Your task to perform on an android device: Open the calendar app, open the side menu, and click the "Day" option Image 0: 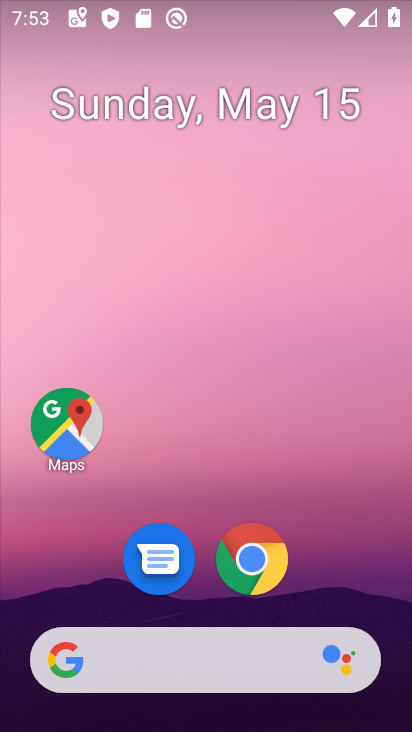
Step 0: drag from (309, 576) to (338, 79)
Your task to perform on an android device: Open the calendar app, open the side menu, and click the "Day" option Image 1: 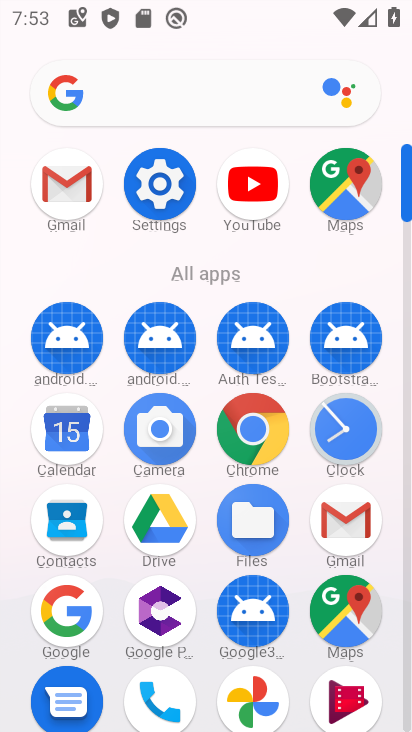
Step 1: click (184, 178)
Your task to perform on an android device: Open the calendar app, open the side menu, and click the "Day" option Image 2: 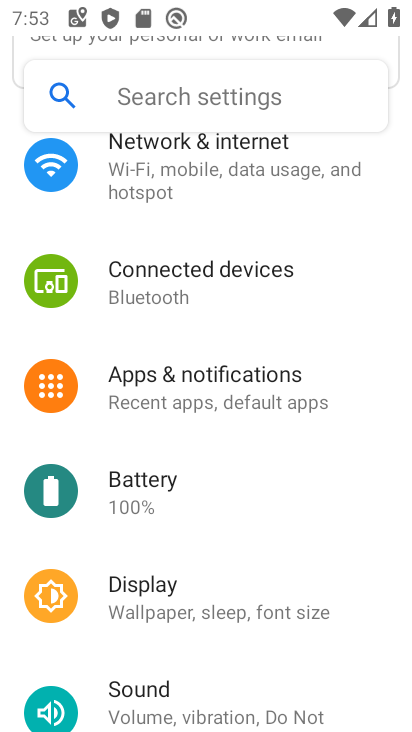
Step 2: press home button
Your task to perform on an android device: Open the calendar app, open the side menu, and click the "Day" option Image 3: 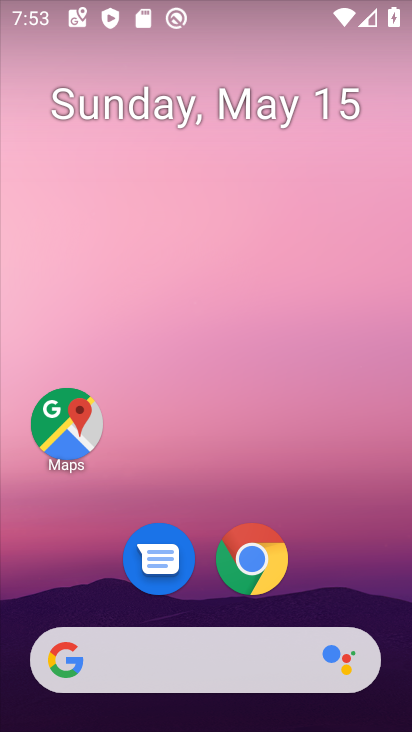
Step 3: drag from (355, 451) to (378, 176)
Your task to perform on an android device: Open the calendar app, open the side menu, and click the "Day" option Image 4: 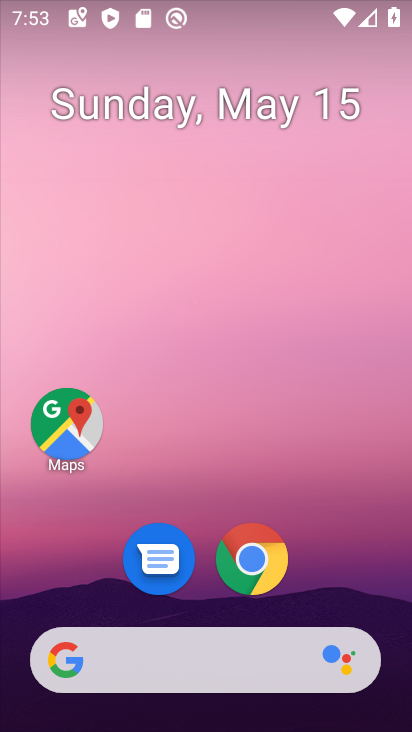
Step 4: drag from (352, 586) to (368, 96)
Your task to perform on an android device: Open the calendar app, open the side menu, and click the "Day" option Image 5: 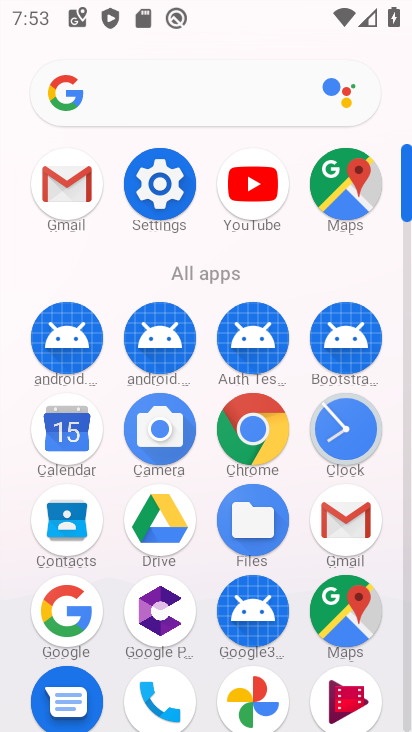
Step 5: click (68, 442)
Your task to perform on an android device: Open the calendar app, open the side menu, and click the "Day" option Image 6: 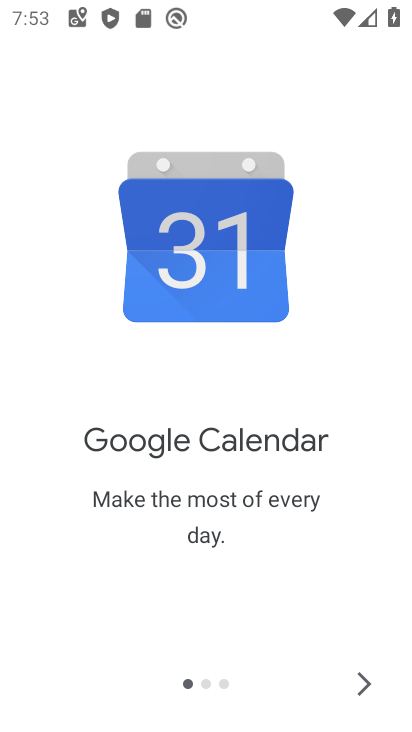
Step 6: click (366, 672)
Your task to perform on an android device: Open the calendar app, open the side menu, and click the "Day" option Image 7: 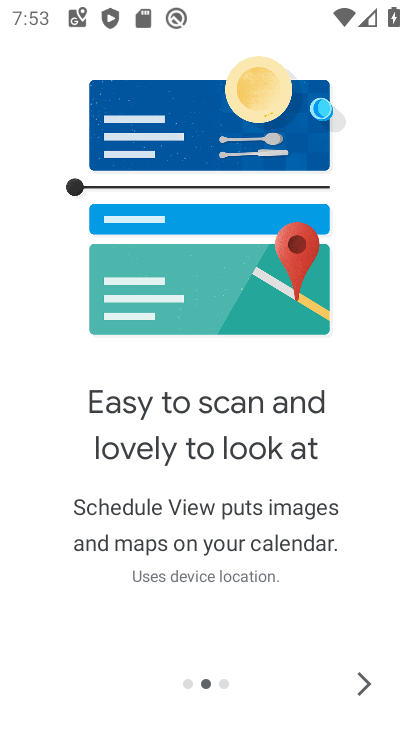
Step 7: click (366, 672)
Your task to perform on an android device: Open the calendar app, open the side menu, and click the "Day" option Image 8: 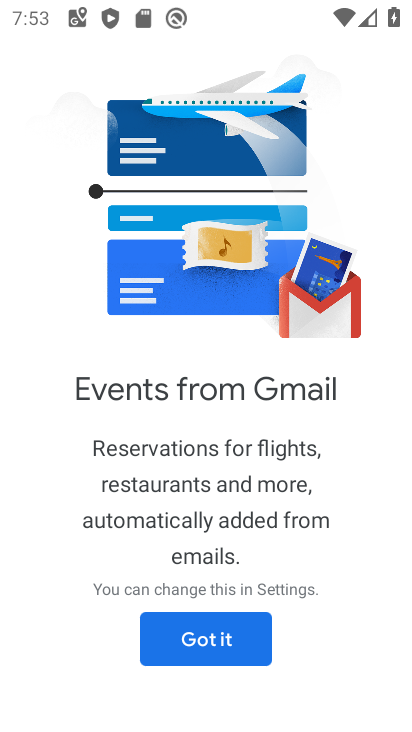
Step 8: click (196, 619)
Your task to perform on an android device: Open the calendar app, open the side menu, and click the "Day" option Image 9: 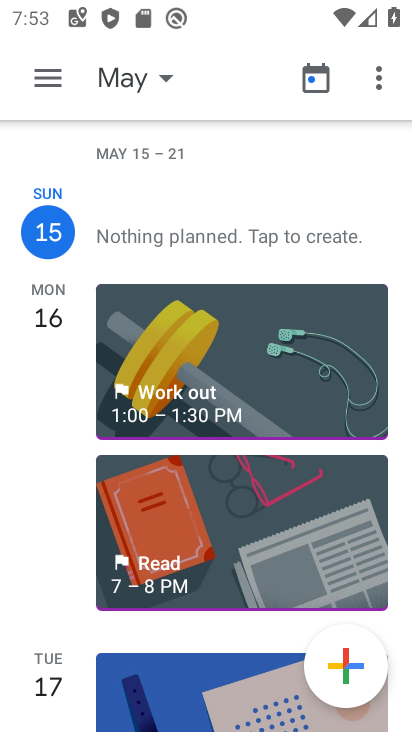
Step 9: click (51, 81)
Your task to perform on an android device: Open the calendar app, open the side menu, and click the "Day" option Image 10: 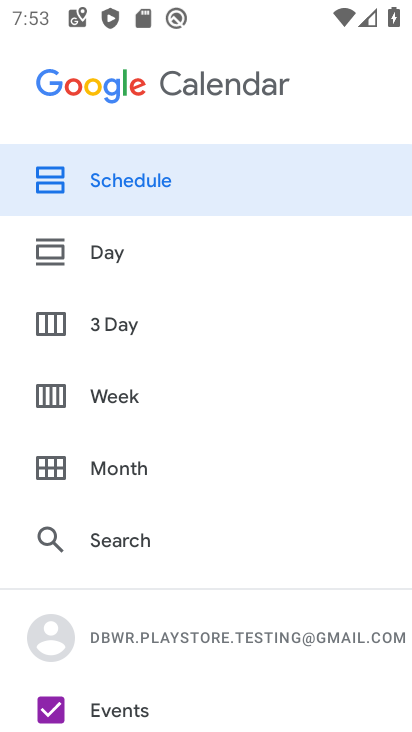
Step 10: click (87, 240)
Your task to perform on an android device: Open the calendar app, open the side menu, and click the "Day" option Image 11: 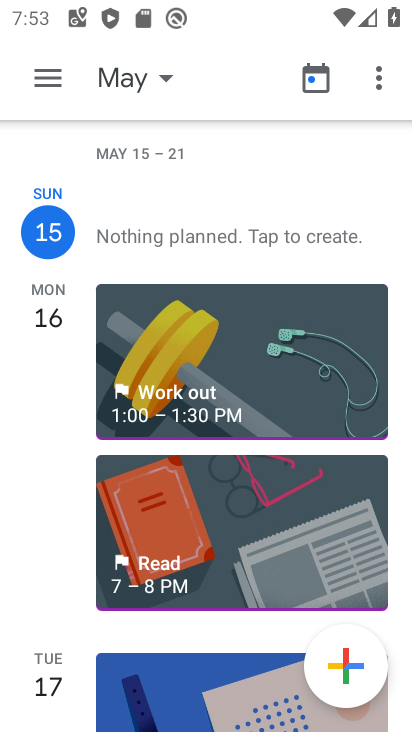
Step 11: task complete